Your task to perform on an android device: change keyboard looks Image 0: 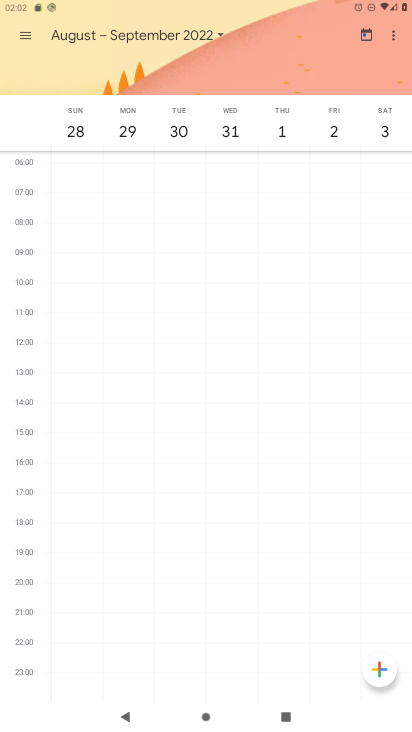
Step 0: press home button
Your task to perform on an android device: change keyboard looks Image 1: 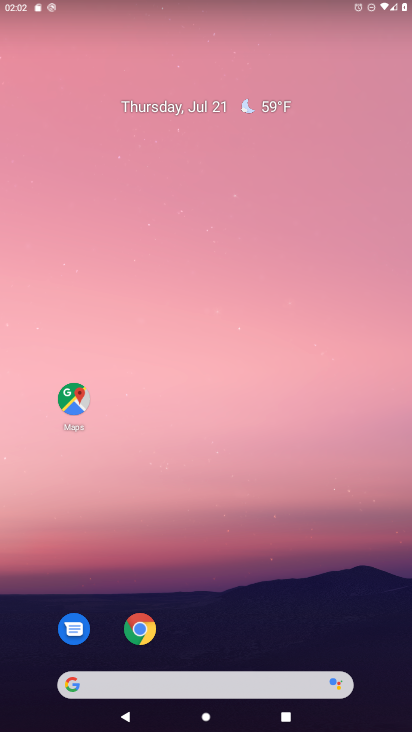
Step 1: drag from (379, 669) to (341, 178)
Your task to perform on an android device: change keyboard looks Image 2: 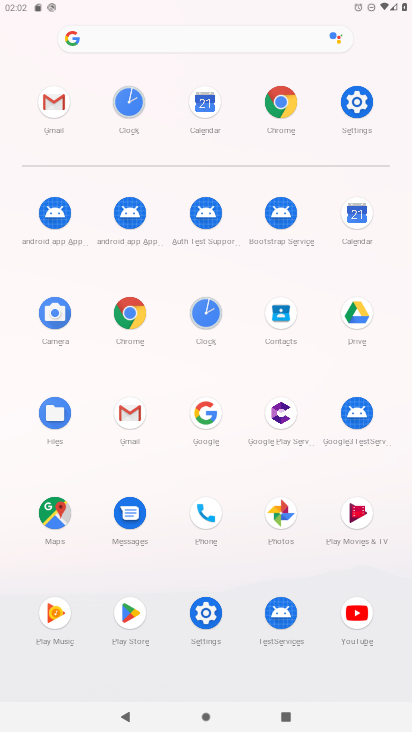
Step 2: click (207, 615)
Your task to perform on an android device: change keyboard looks Image 3: 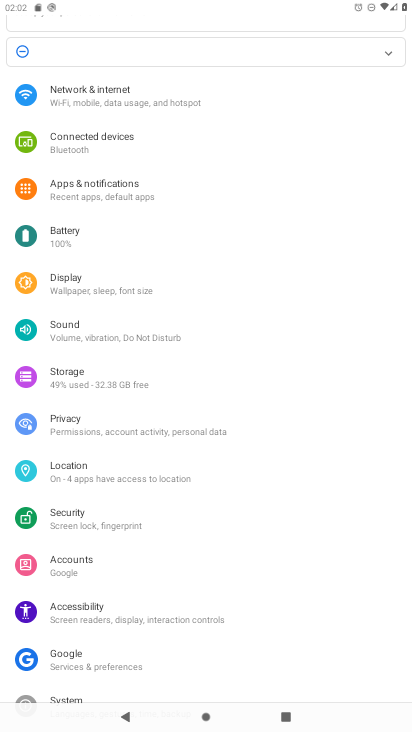
Step 3: drag from (249, 634) to (238, 174)
Your task to perform on an android device: change keyboard looks Image 4: 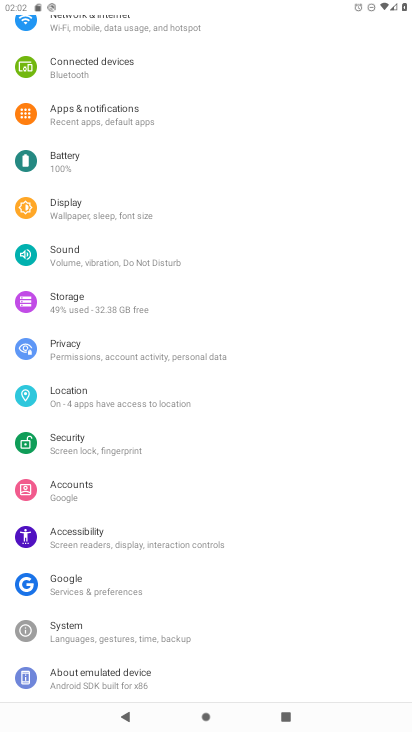
Step 4: click (62, 629)
Your task to perform on an android device: change keyboard looks Image 5: 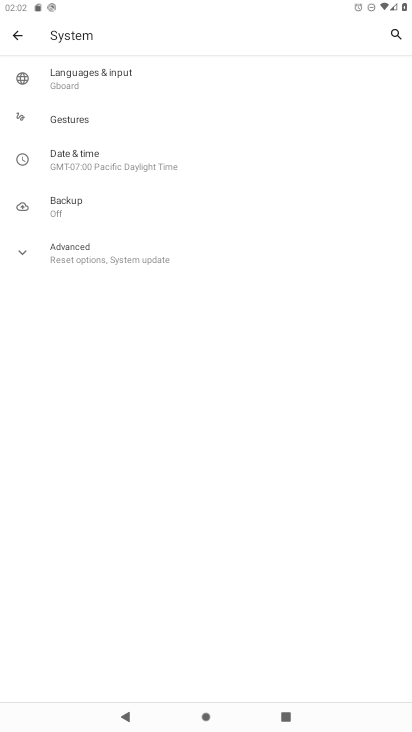
Step 5: click (72, 76)
Your task to perform on an android device: change keyboard looks Image 6: 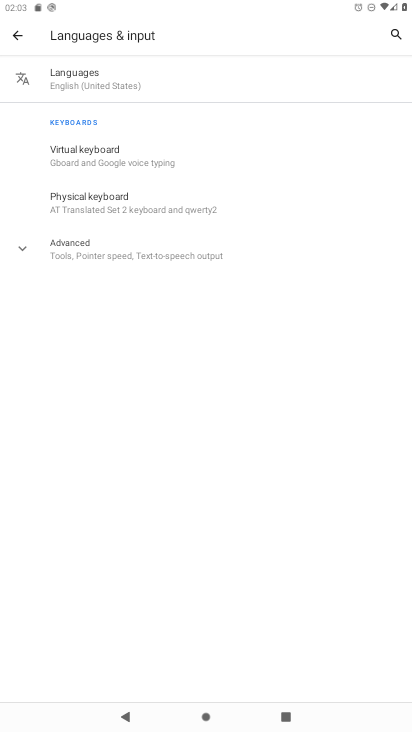
Step 6: click (82, 193)
Your task to perform on an android device: change keyboard looks Image 7: 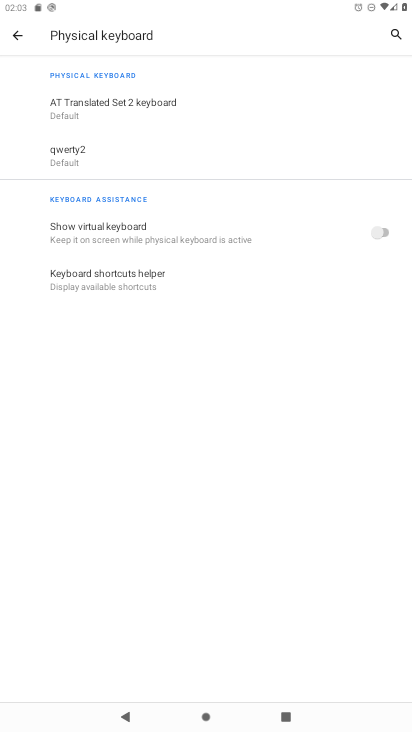
Step 7: click (63, 155)
Your task to perform on an android device: change keyboard looks Image 8: 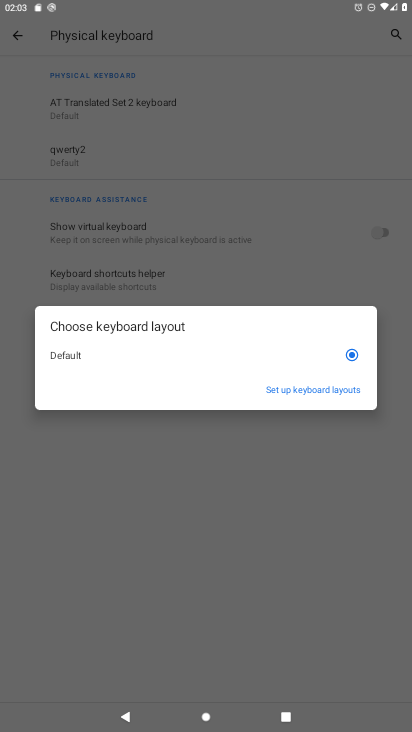
Step 8: click (321, 389)
Your task to perform on an android device: change keyboard looks Image 9: 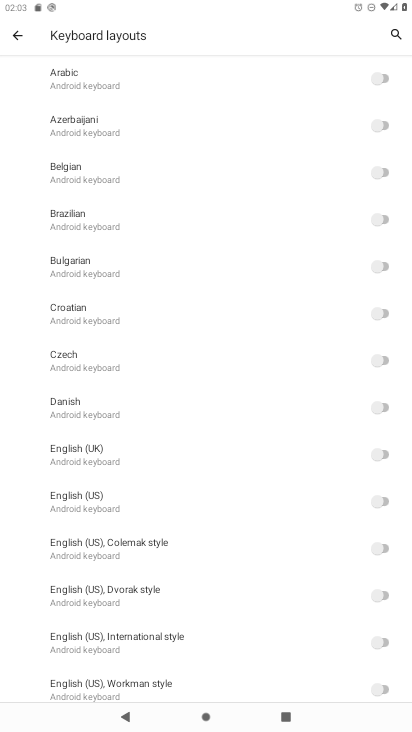
Step 9: click (387, 504)
Your task to perform on an android device: change keyboard looks Image 10: 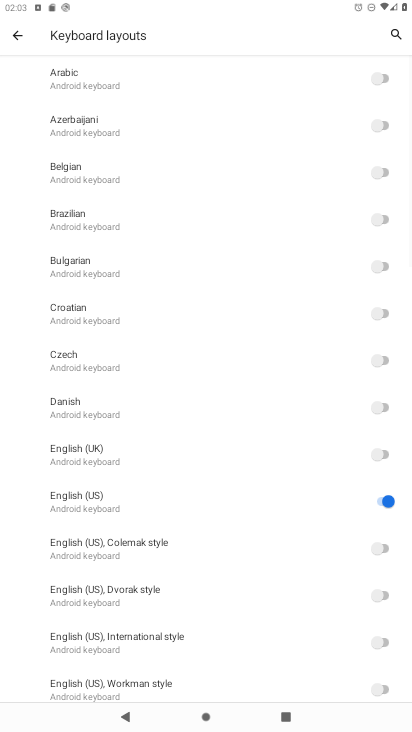
Step 10: task complete